Your task to perform on an android device: open app "NewsBreak: Local News & Alerts" (install if not already installed) and enter user name: "switch@outlook.com" and password: "fabrics" Image 0: 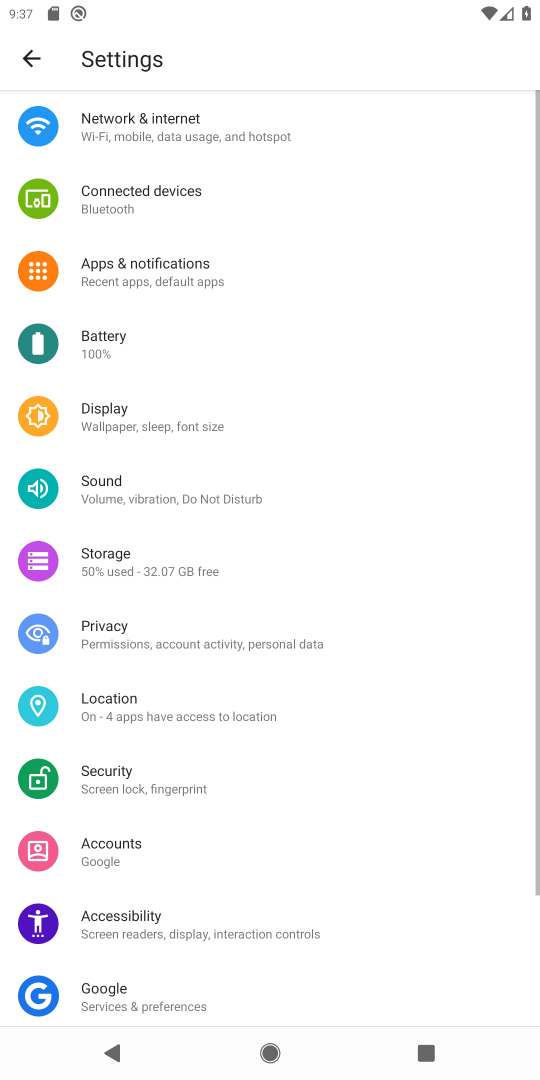
Step 0: press home button
Your task to perform on an android device: open app "NewsBreak: Local News & Alerts" (install if not already installed) and enter user name: "switch@outlook.com" and password: "fabrics" Image 1: 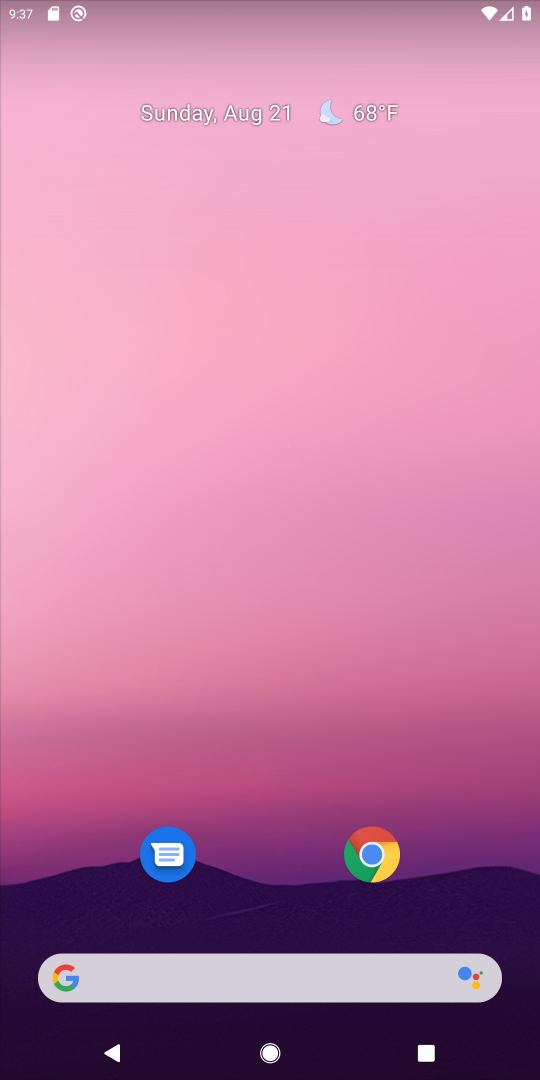
Step 1: press home button
Your task to perform on an android device: open app "NewsBreak: Local News & Alerts" (install if not already installed) and enter user name: "switch@outlook.com" and password: "fabrics" Image 2: 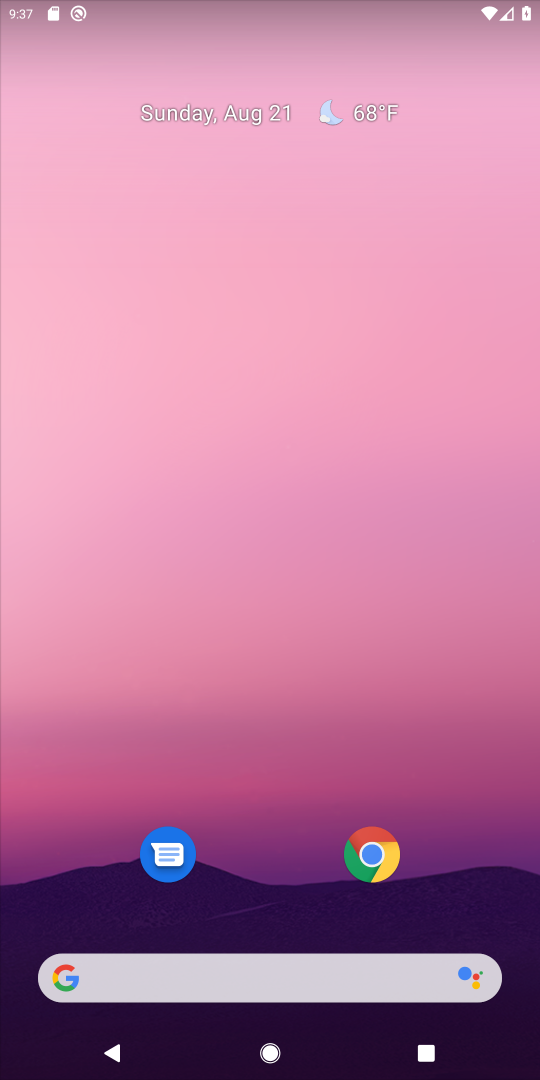
Step 2: drag from (283, 938) to (292, 29)
Your task to perform on an android device: open app "NewsBreak: Local News & Alerts" (install if not already installed) and enter user name: "switch@outlook.com" and password: "fabrics" Image 3: 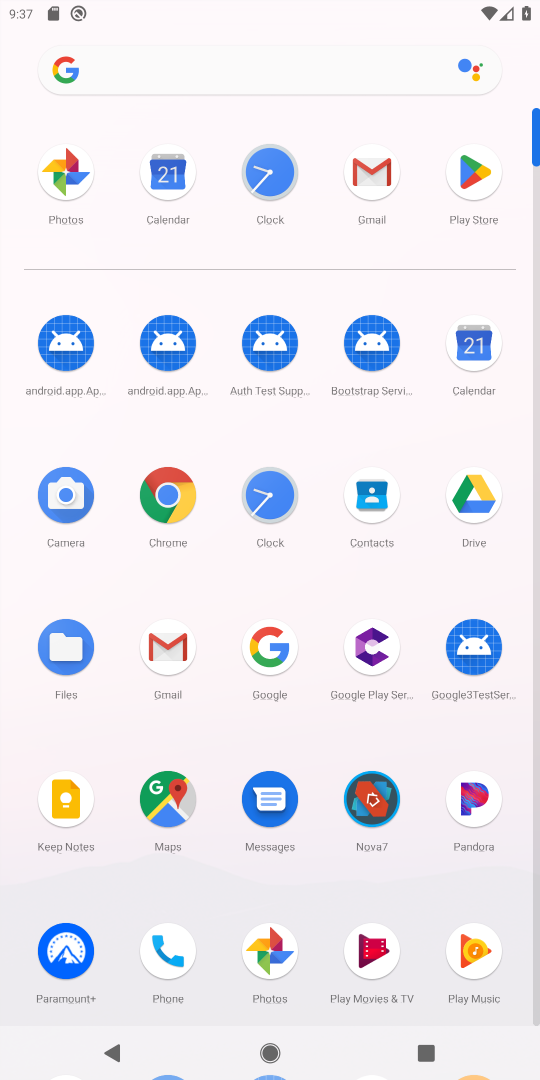
Step 3: click (483, 183)
Your task to perform on an android device: open app "NewsBreak: Local News & Alerts" (install if not already installed) and enter user name: "switch@outlook.com" and password: "fabrics" Image 4: 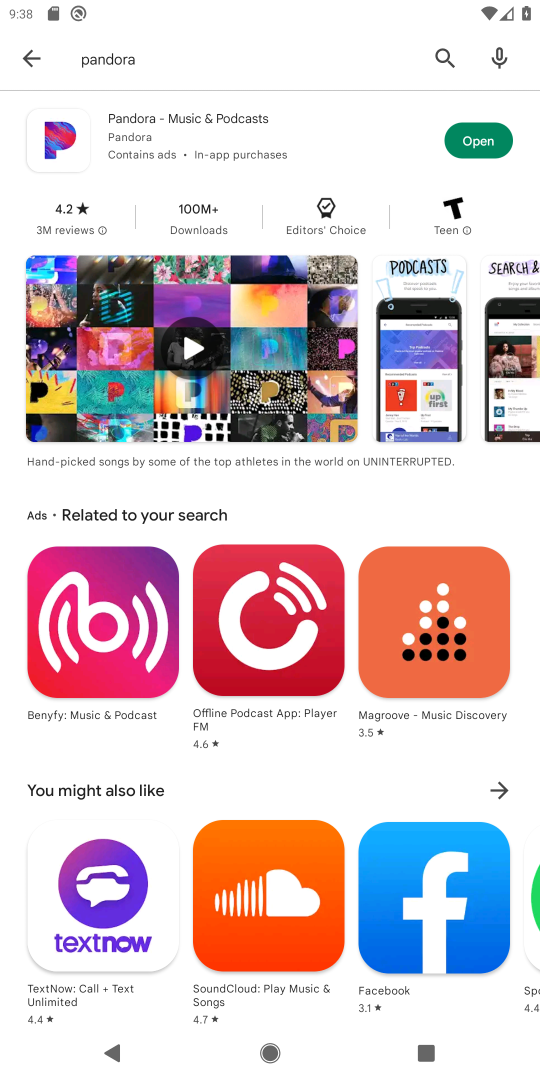
Step 4: click (460, 69)
Your task to perform on an android device: open app "NewsBreak: Local News & Alerts" (install if not already installed) and enter user name: "switch@outlook.com" and password: "fabrics" Image 5: 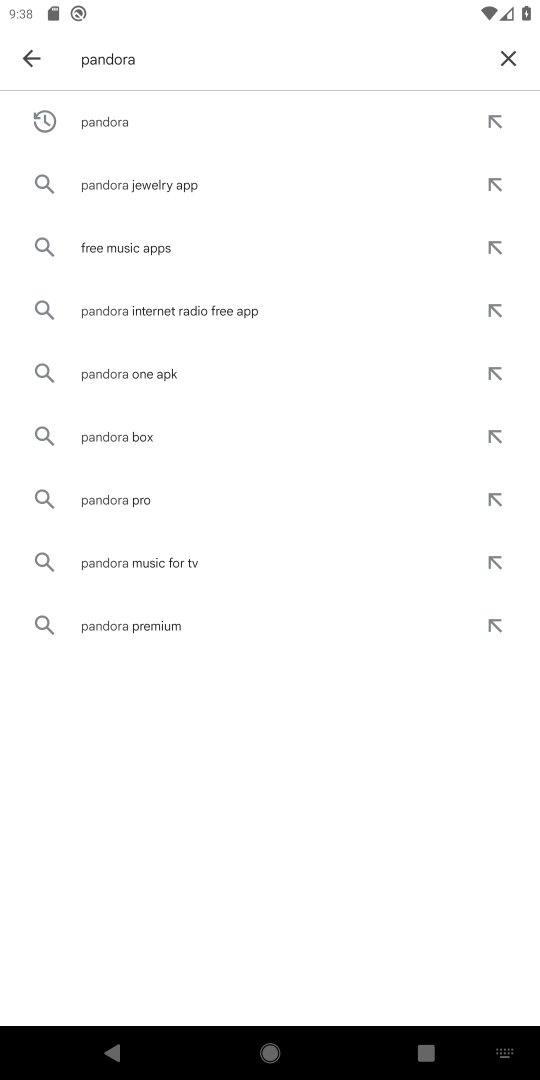
Step 5: click (500, 64)
Your task to perform on an android device: open app "NewsBreak: Local News & Alerts" (install if not already installed) and enter user name: "switch@outlook.com" and password: "fabrics" Image 6: 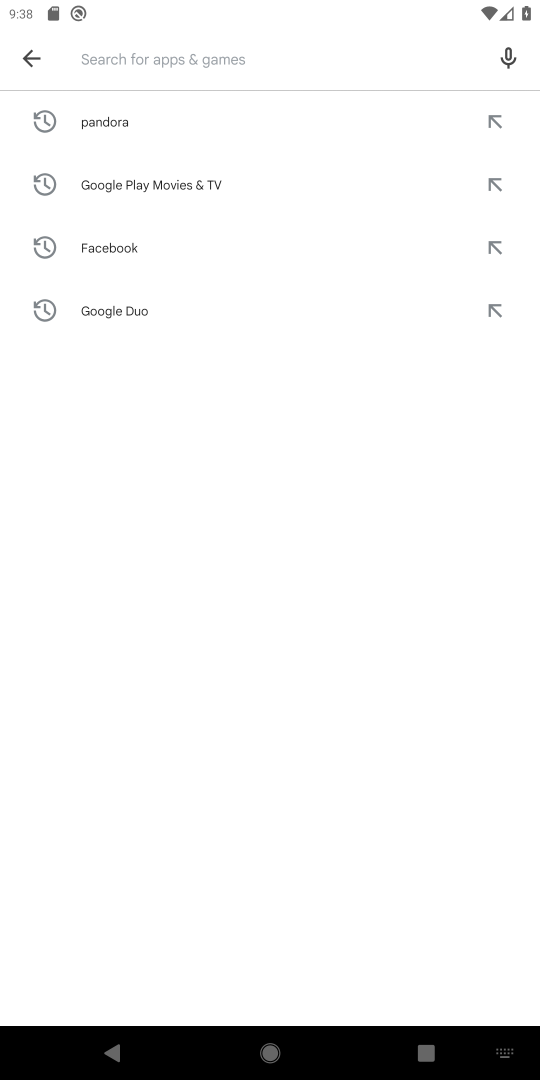
Step 6: type "newsbreak"
Your task to perform on an android device: open app "NewsBreak: Local News & Alerts" (install if not already installed) and enter user name: "switch@outlook.com" and password: "fabrics" Image 7: 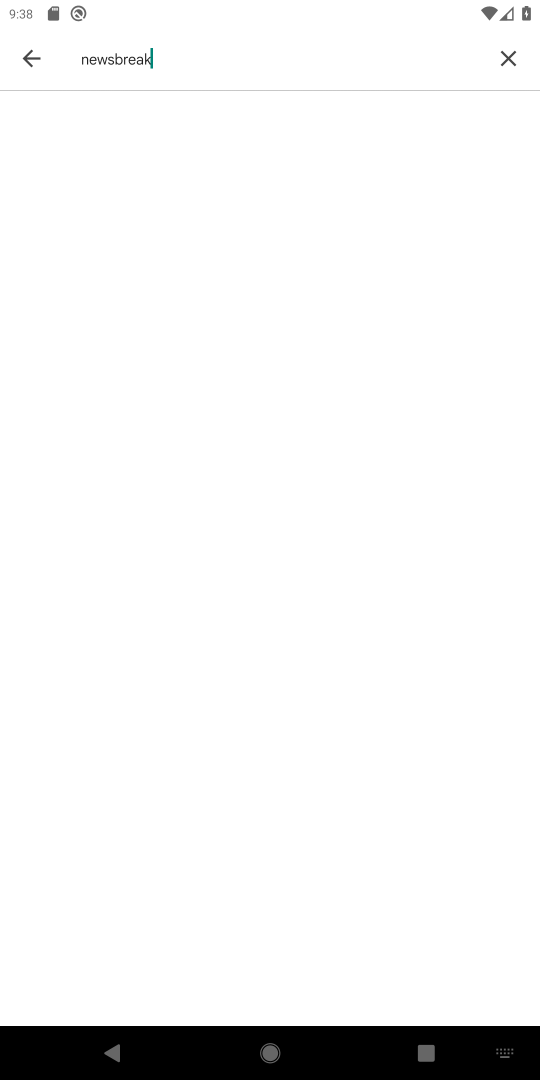
Step 7: task complete